Your task to perform on an android device: Show me popular games on the Play Store Image 0: 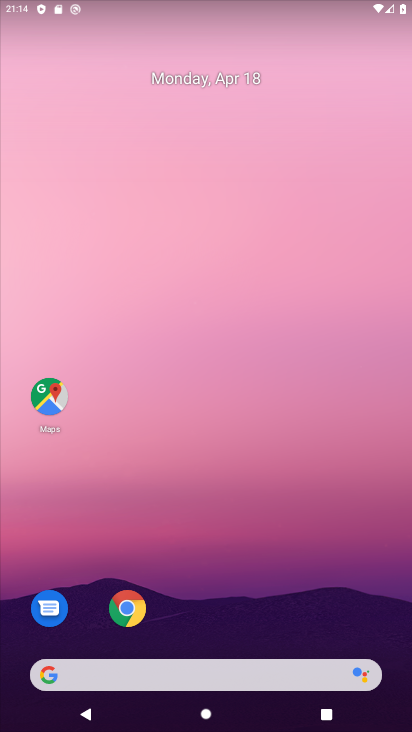
Step 0: drag from (216, 553) to (238, 133)
Your task to perform on an android device: Show me popular games on the Play Store Image 1: 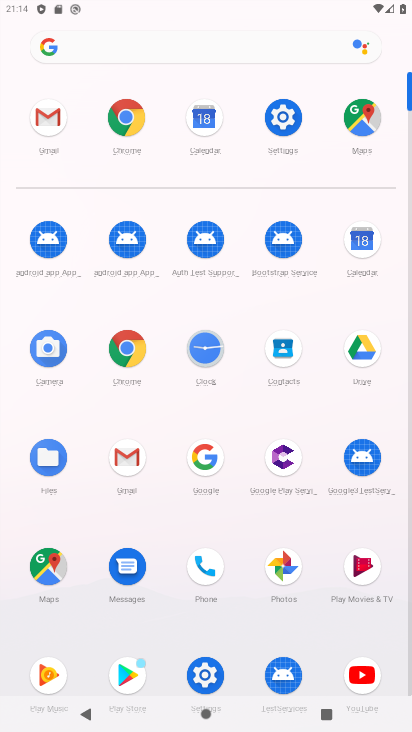
Step 1: click (128, 670)
Your task to perform on an android device: Show me popular games on the Play Store Image 2: 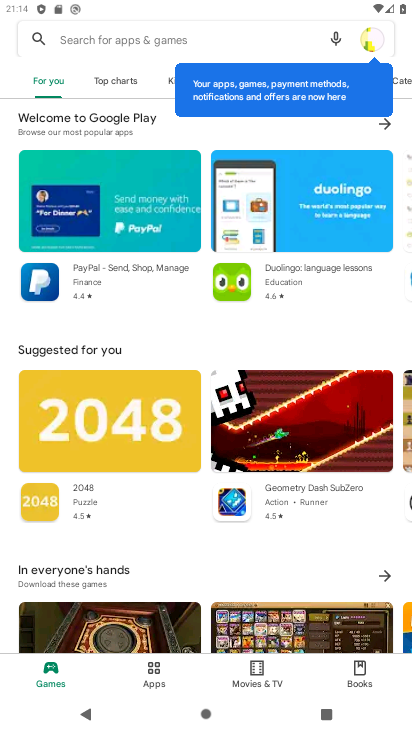
Step 2: drag from (159, 537) to (182, 95)
Your task to perform on an android device: Show me popular games on the Play Store Image 3: 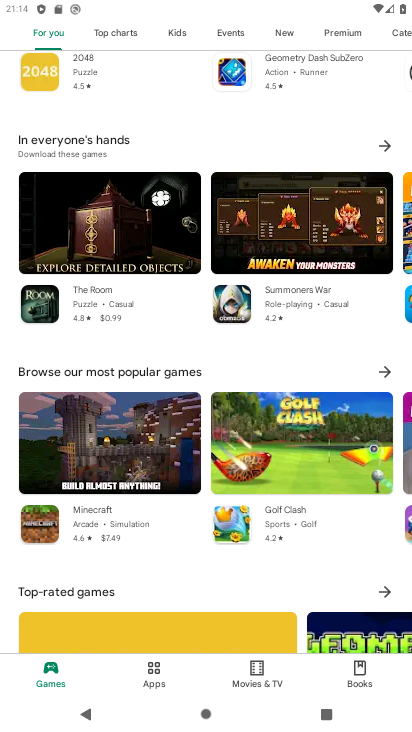
Step 3: drag from (226, 334) to (225, 224)
Your task to perform on an android device: Show me popular games on the Play Store Image 4: 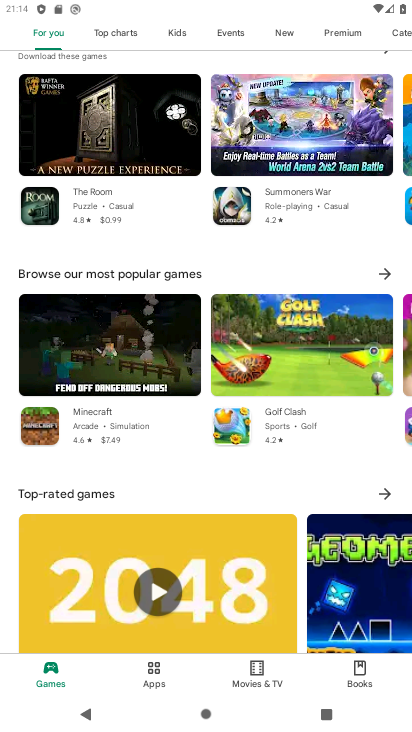
Step 4: click (380, 272)
Your task to perform on an android device: Show me popular games on the Play Store Image 5: 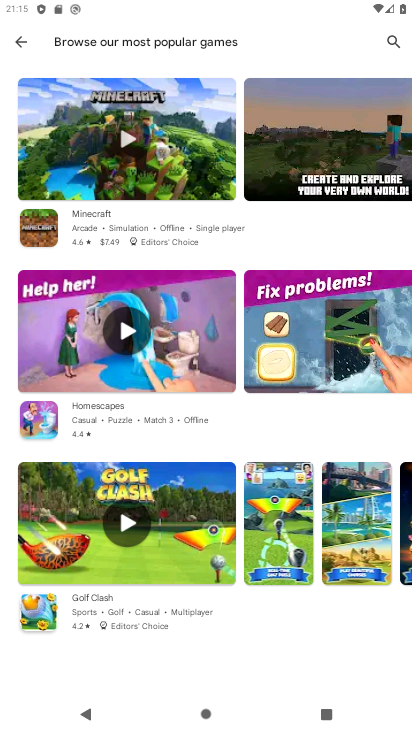
Step 5: task complete